Your task to perform on an android device: open wifi settings Image 0: 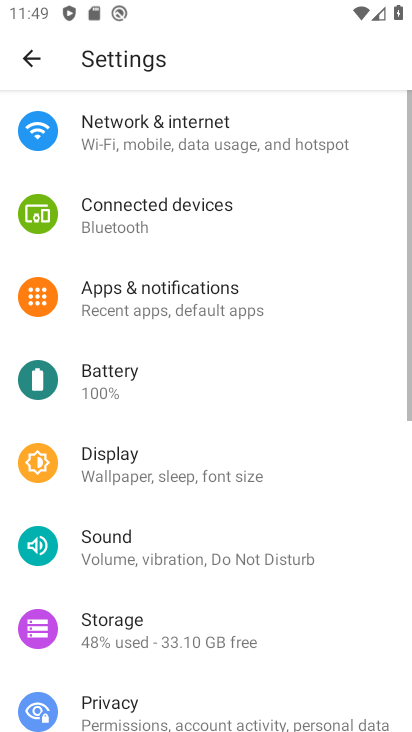
Step 0: click (182, 134)
Your task to perform on an android device: open wifi settings Image 1: 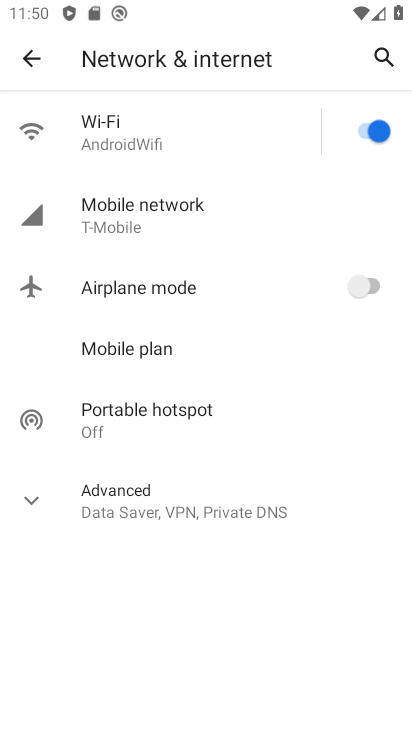
Step 1: click (159, 125)
Your task to perform on an android device: open wifi settings Image 2: 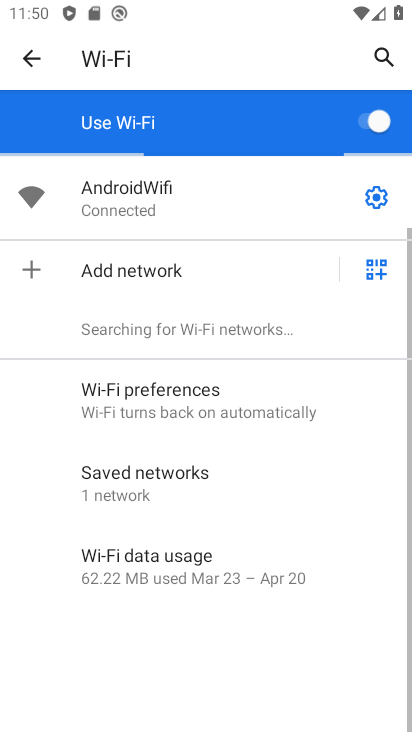
Step 2: task complete